Your task to perform on an android device: Go to sound settings Image 0: 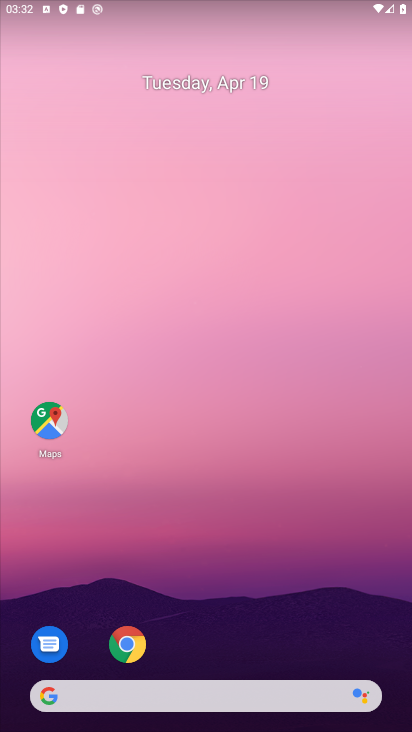
Step 0: drag from (360, 632) to (313, 283)
Your task to perform on an android device: Go to sound settings Image 1: 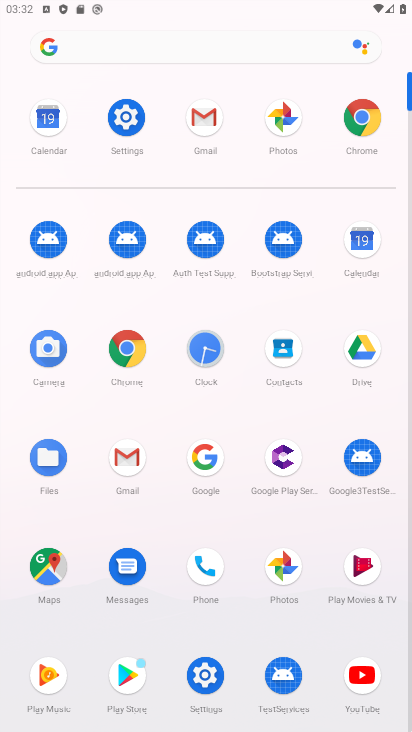
Step 1: click (201, 675)
Your task to perform on an android device: Go to sound settings Image 2: 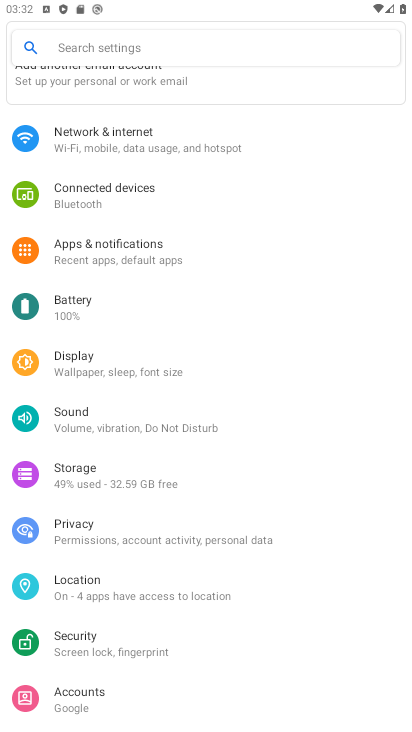
Step 2: click (84, 421)
Your task to perform on an android device: Go to sound settings Image 3: 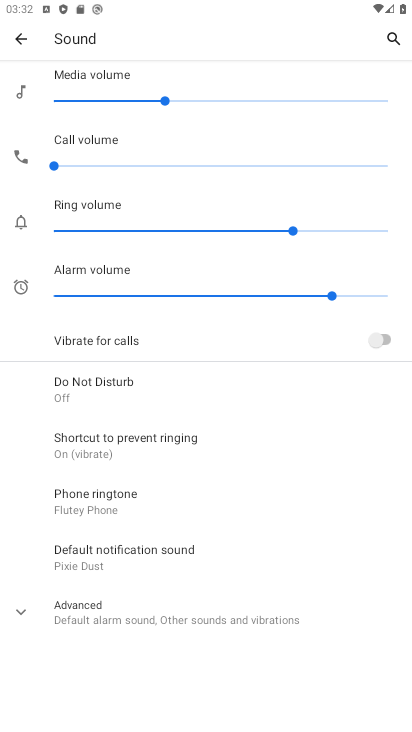
Step 3: click (48, 601)
Your task to perform on an android device: Go to sound settings Image 4: 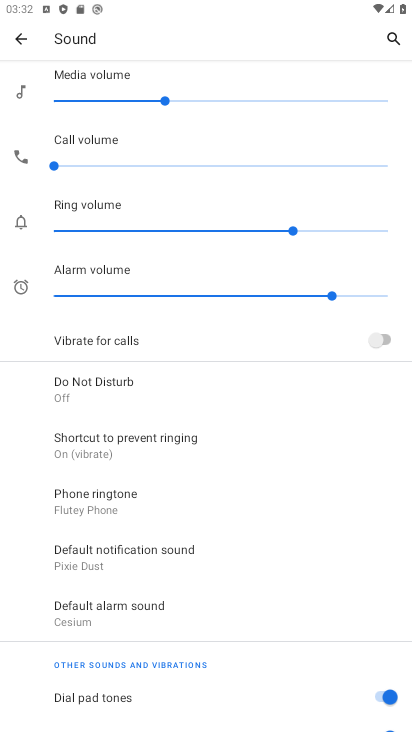
Step 4: task complete